Your task to perform on an android device: Add "razer nari" to the cart on amazon, then select checkout. Image 0: 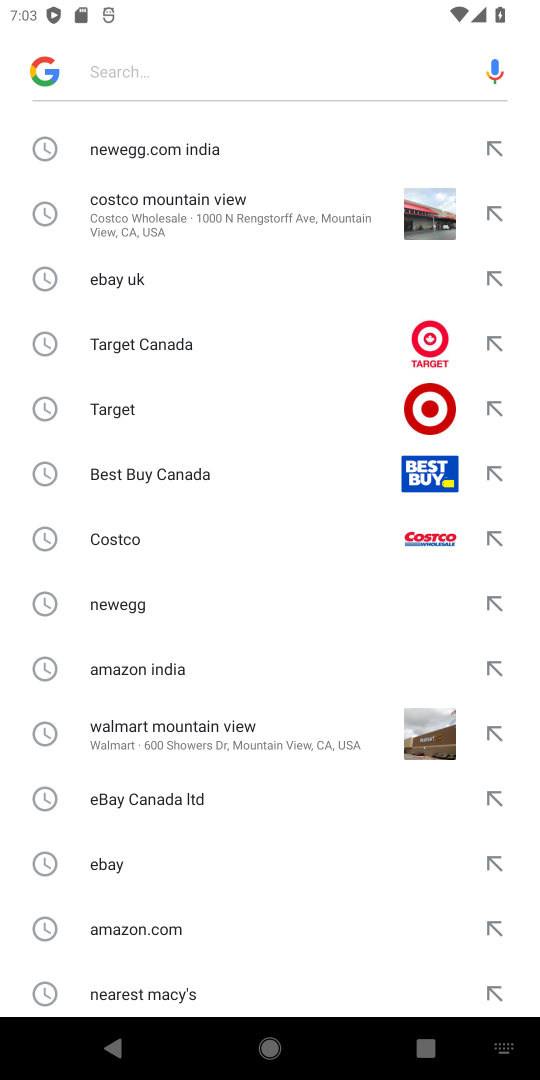
Step 0: press home button
Your task to perform on an android device: Add "razer nari" to the cart on amazon, then select checkout. Image 1: 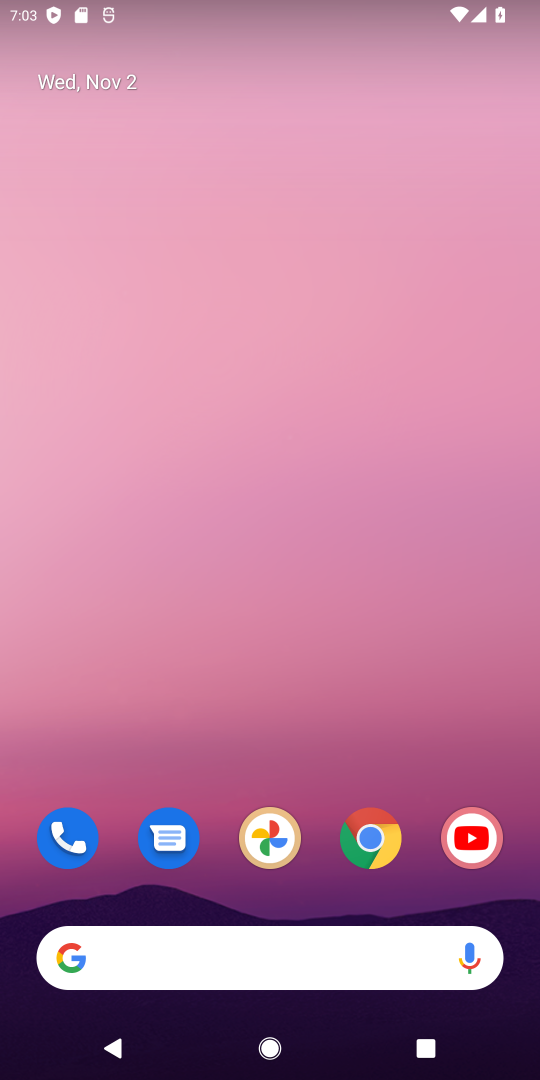
Step 1: click (371, 845)
Your task to perform on an android device: Add "razer nari" to the cart on amazon, then select checkout. Image 2: 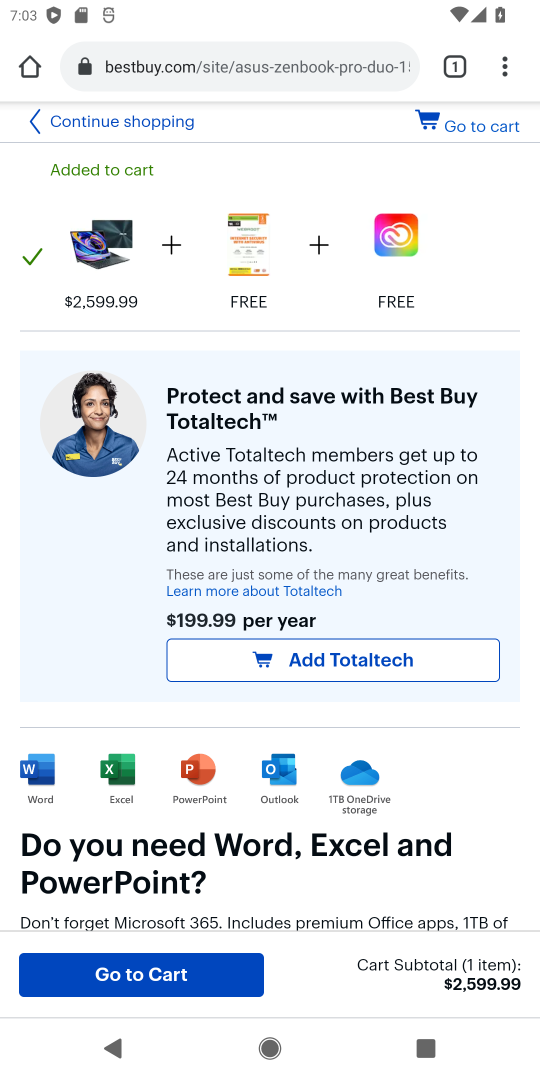
Step 2: click (296, 51)
Your task to perform on an android device: Add "razer nari" to the cart on amazon, then select checkout. Image 3: 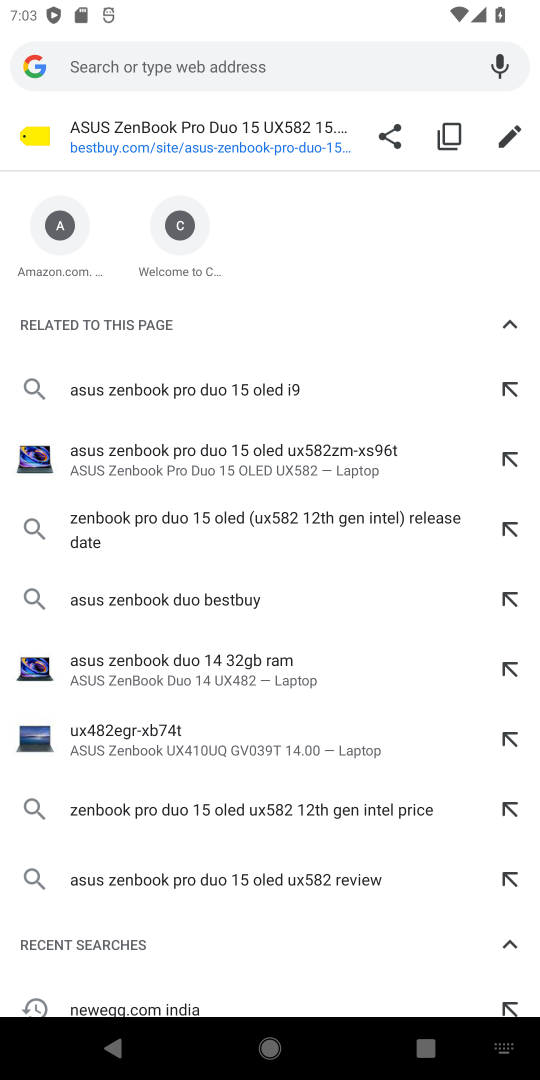
Step 3: type "amazon"
Your task to perform on an android device: Add "razer nari" to the cart on amazon, then select checkout. Image 4: 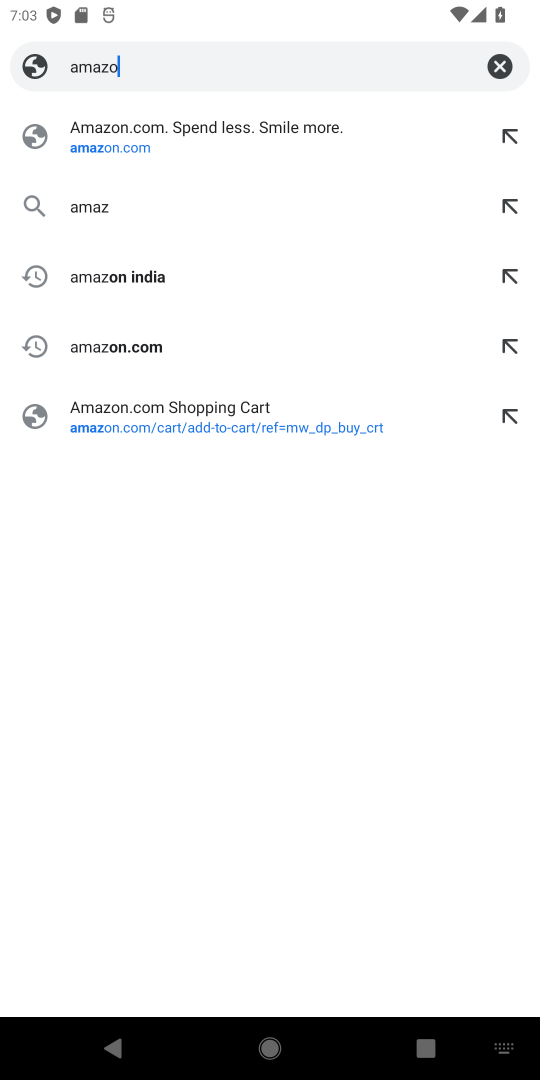
Step 4: type ""
Your task to perform on an android device: Add "razer nari" to the cart on amazon, then select checkout. Image 5: 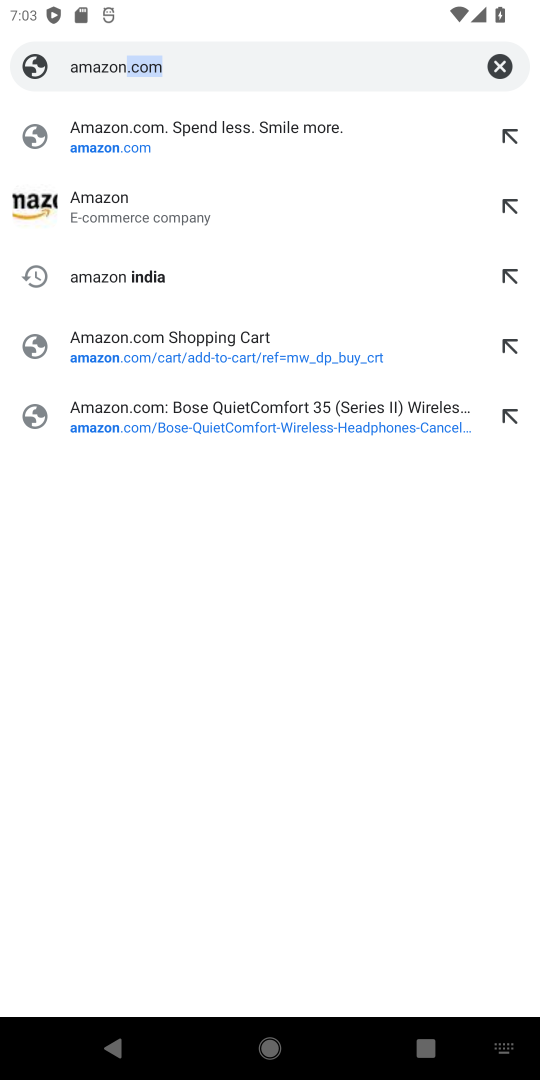
Step 5: press enter
Your task to perform on an android device: Add "razer nari" to the cart on amazon, then select checkout. Image 6: 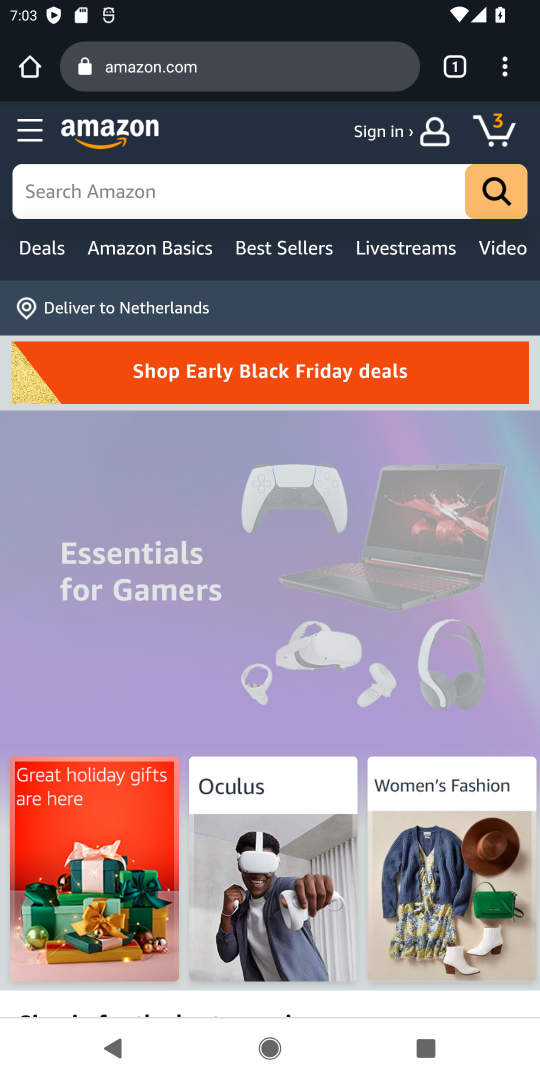
Step 6: click (280, 191)
Your task to perform on an android device: Add "razer nari" to the cart on amazon, then select checkout. Image 7: 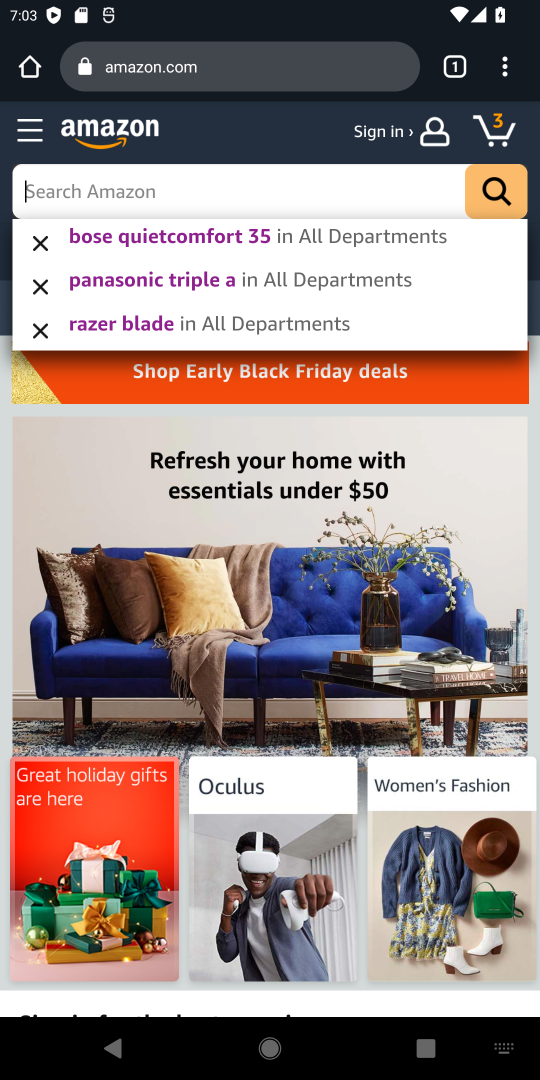
Step 7: type "razer nari"
Your task to perform on an android device: Add "razer nari" to the cart on amazon, then select checkout. Image 8: 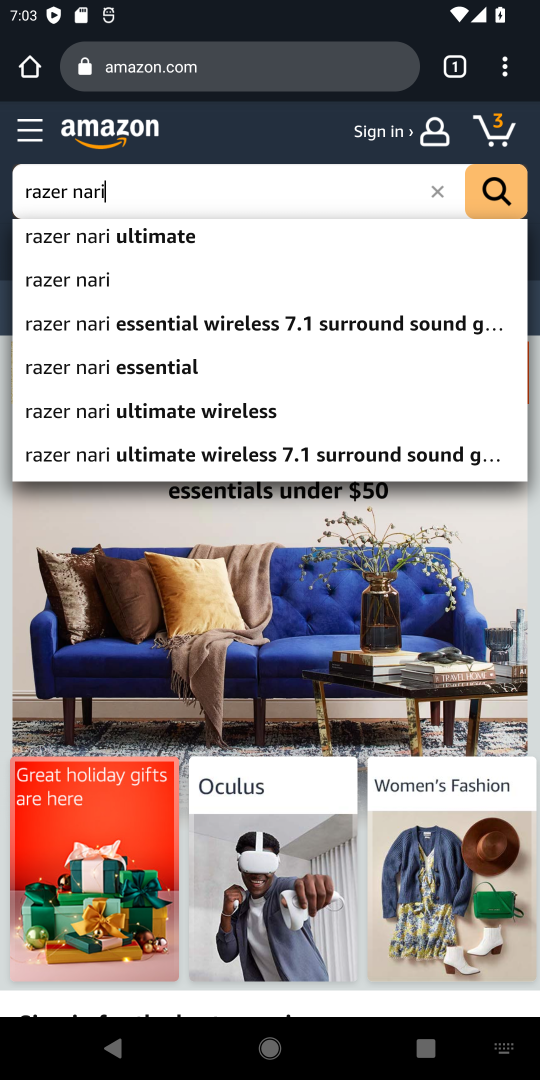
Step 8: press enter
Your task to perform on an android device: Add "razer nari" to the cart on amazon, then select checkout. Image 9: 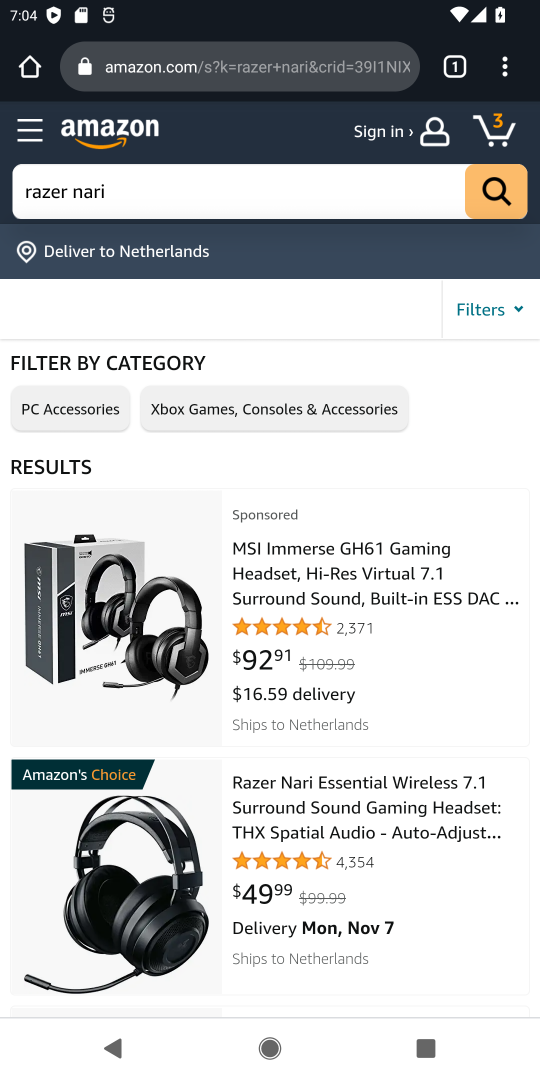
Step 9: drag from (330, 864) to (328, 799)
Your task to perform on an android device: Add "razer nari" to the cart on amazon, then select checkout. Image 10: 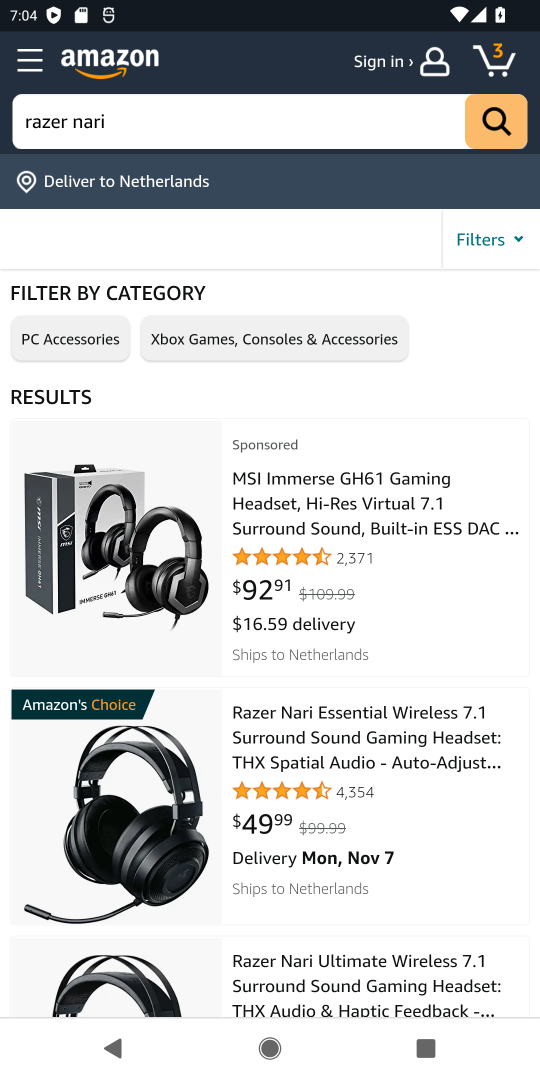
Step 10: click (317, 729)
Your task to perform on an android device: Add "razer nari" to the cart on amazon, then select checkout. Image 11: 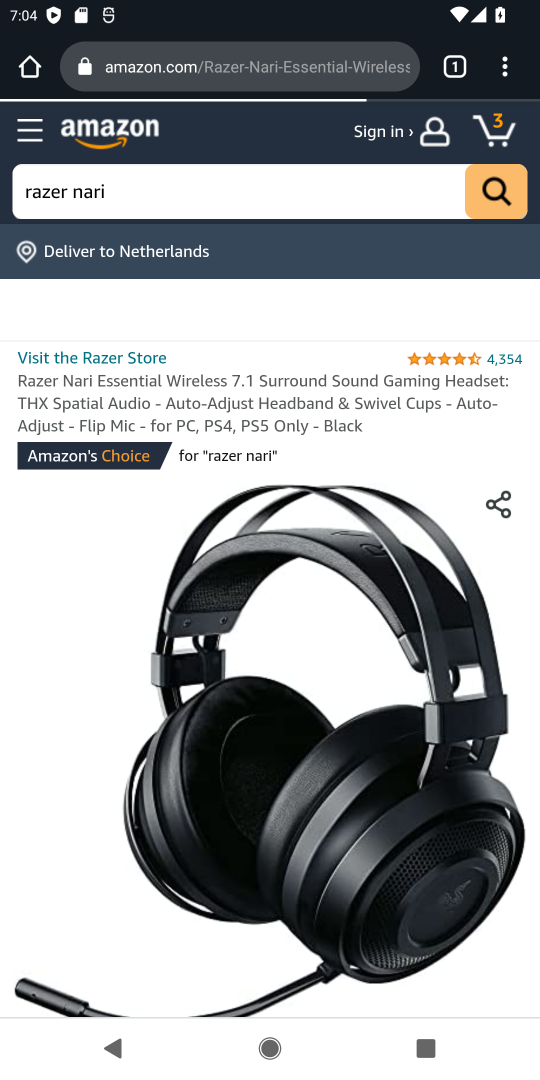
Step 11: drag from (363, 820) to (378, 307)
Your task to perform on an android device: Add "razer nari" to the cart on amazon, then select checkout. Image 12: 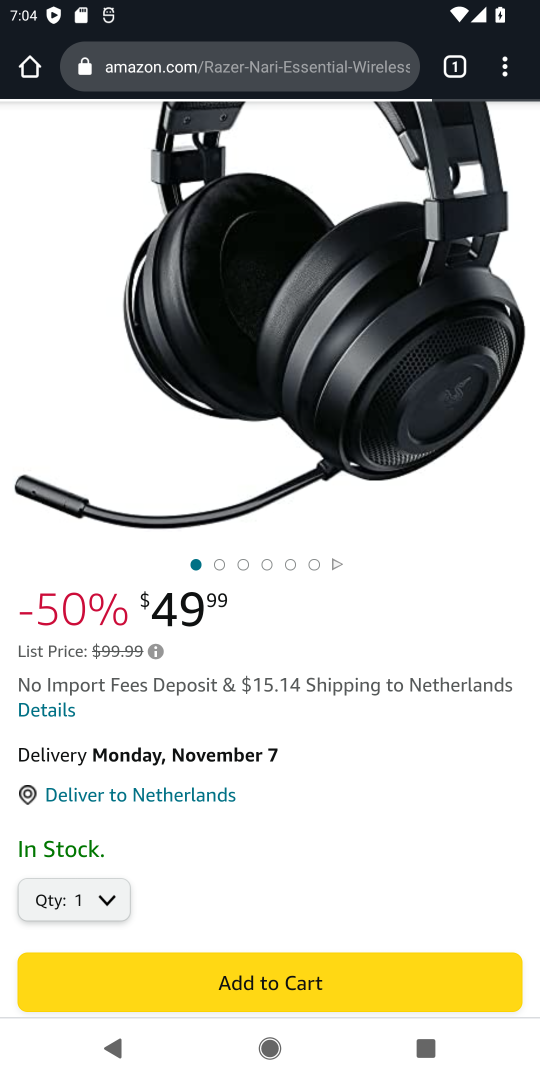
Step 12: click (317, 960)
Your task to perform on an android device: Add "razer nari" to the cart on amazon, then select checkout. Image 13: 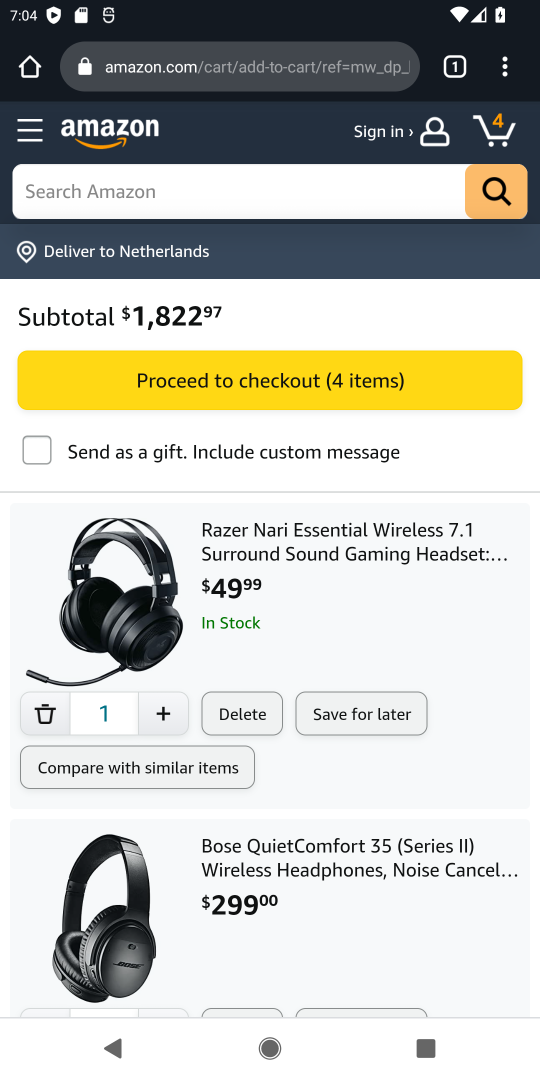
Step 13: click (202, 387)
Your task to perform on an android device: Add "razer nari" to the cart on amazon, then select checkout. Image 14: 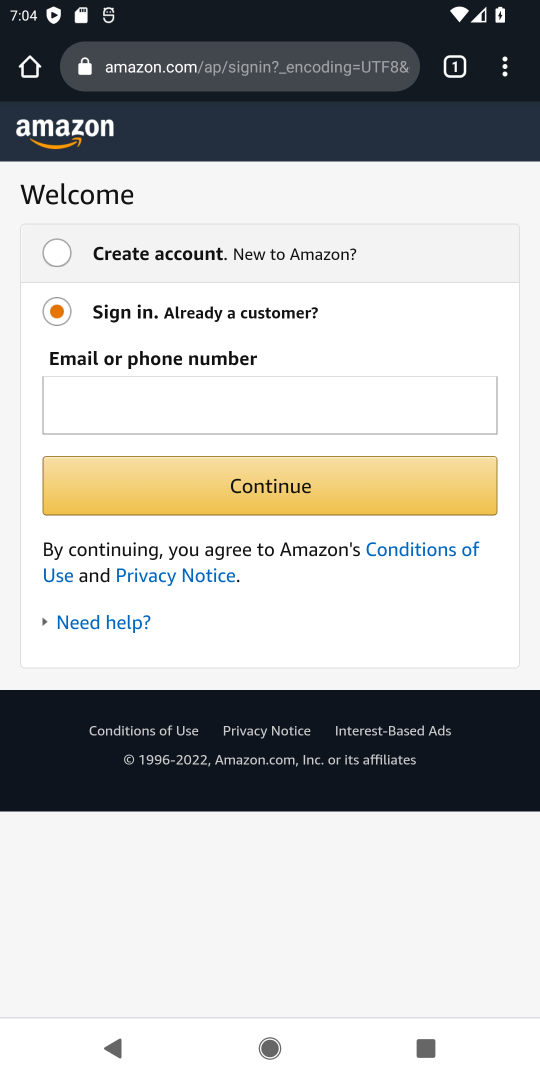
Step 14: task complete